Your task to perform on an android device: find snoozed emails in the gmail app Image 0: 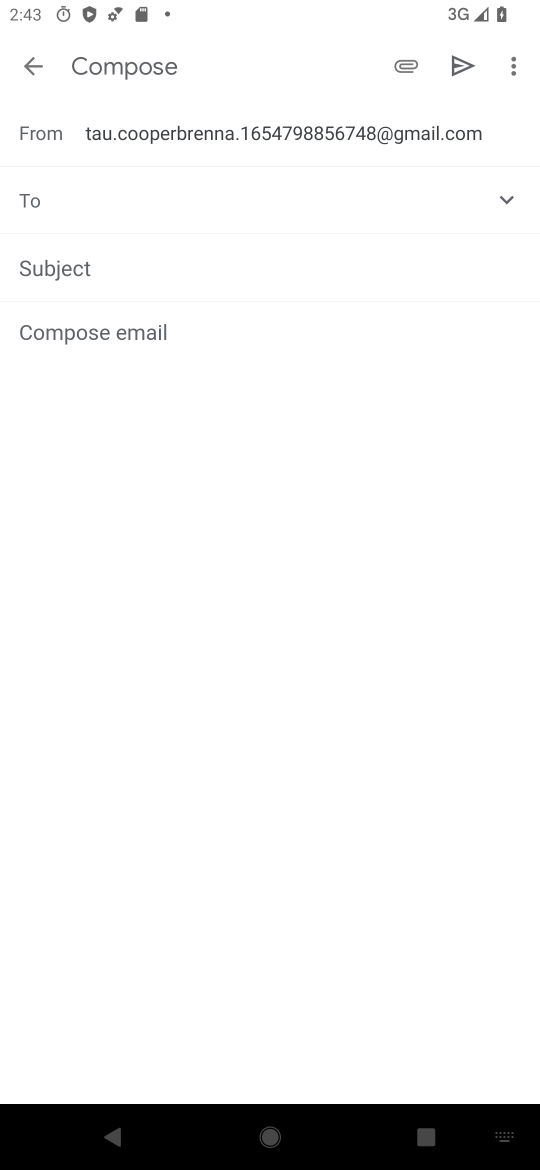
Step 0: press home button
Your task to perform on an android device: find snoozed emails in the gmail app Image 1: 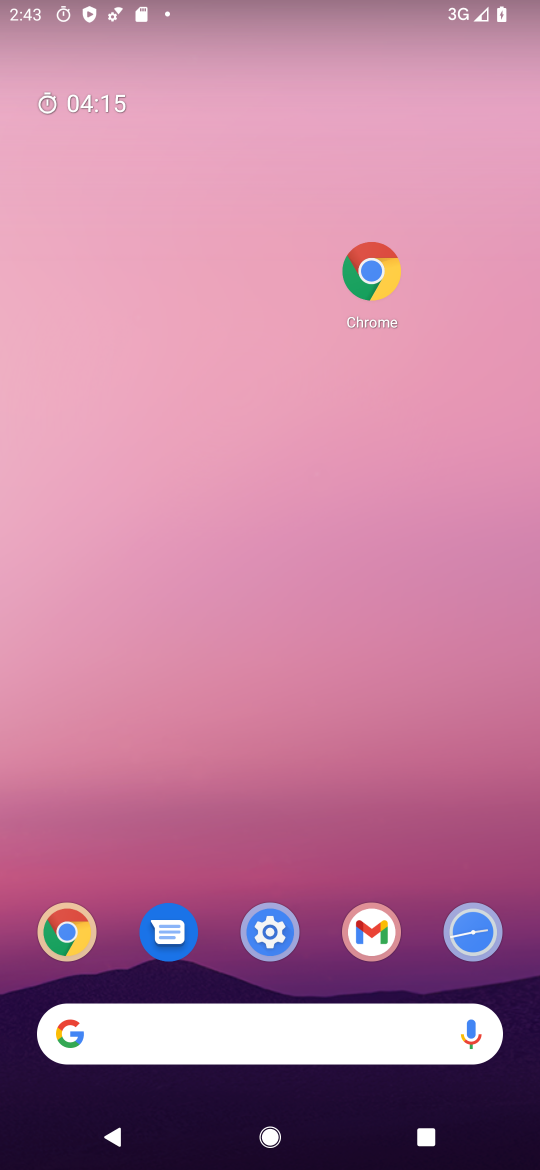
Step 1: drag from (340, 973) to (486, 72)
Your task to perform on an android device: find snoozed emails in the gmail app Image 2: 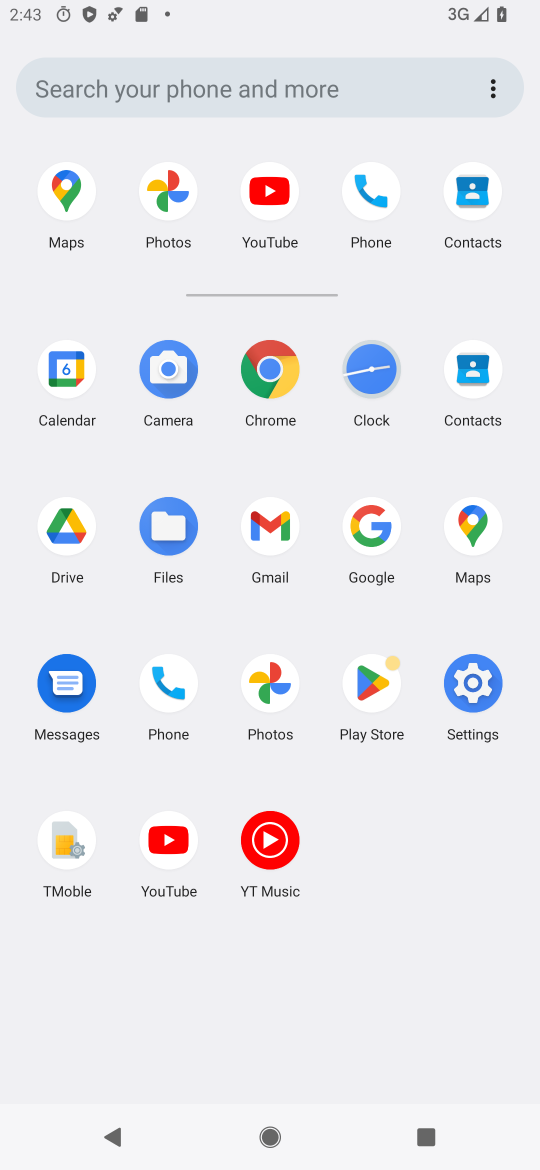
Step 2: click (392, 365)
Your task to perform on an android device: find snoozed emails in the gmail app Image 3: 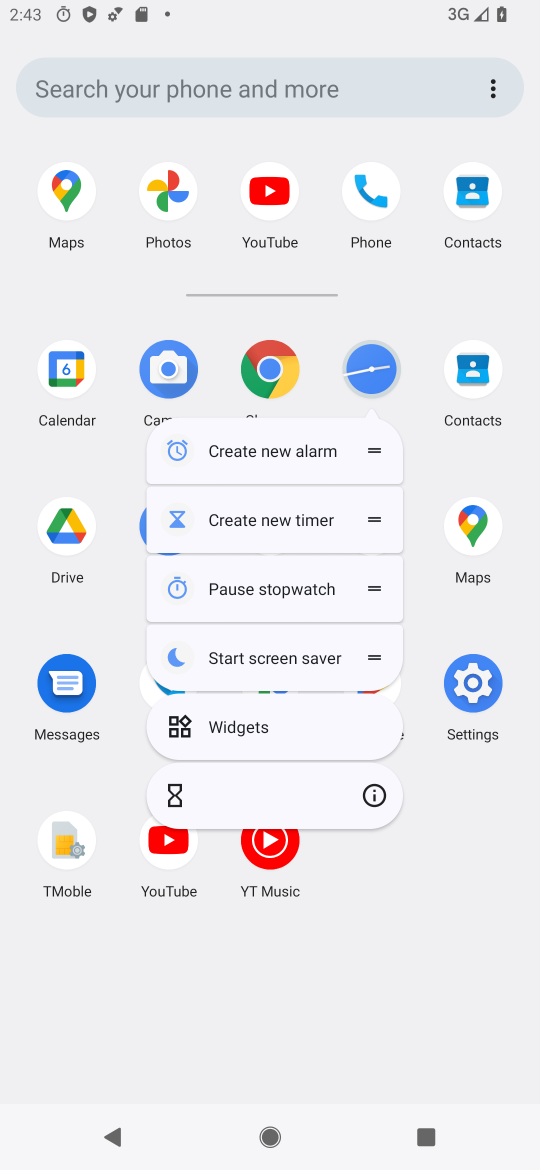
Step 3: click (454, 615)
Your task to perform on an android device: find snoozed emails in the gmail app Image 4: 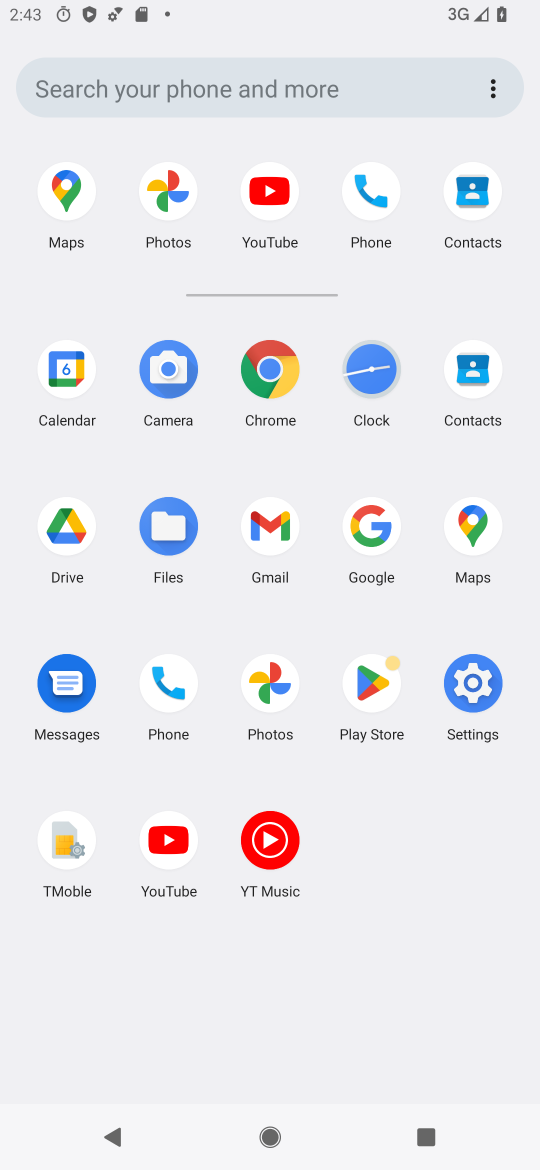
Step 4: click (252, 542)
Your task to perform on an android device: find snoozed emails in the gmail app Image 5: 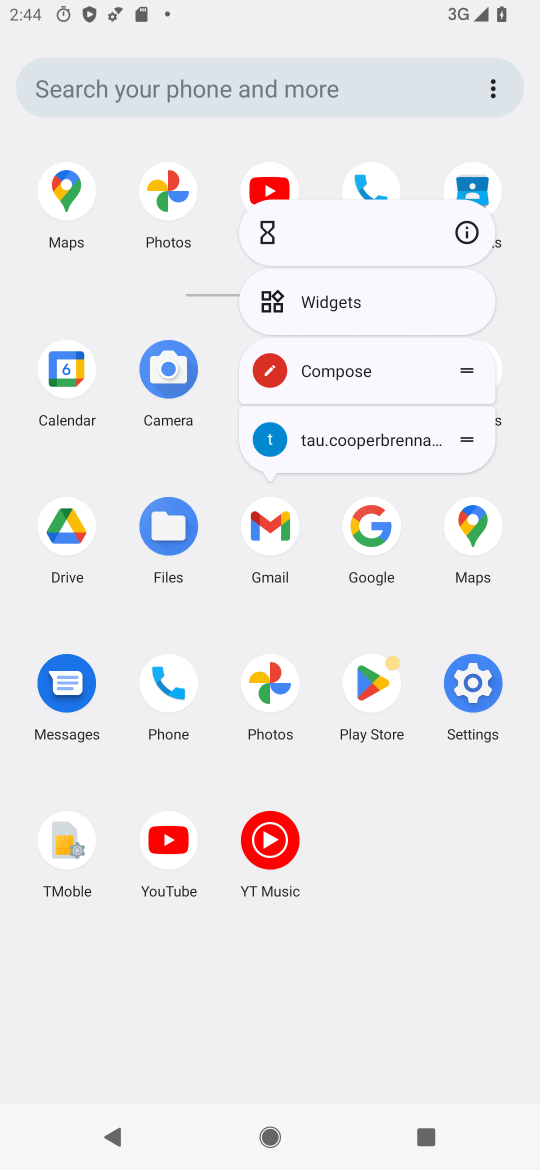
Step 5: click (265, 526)
Your task to perform on an android device: find snoozed emails in the gmail app Image 6: 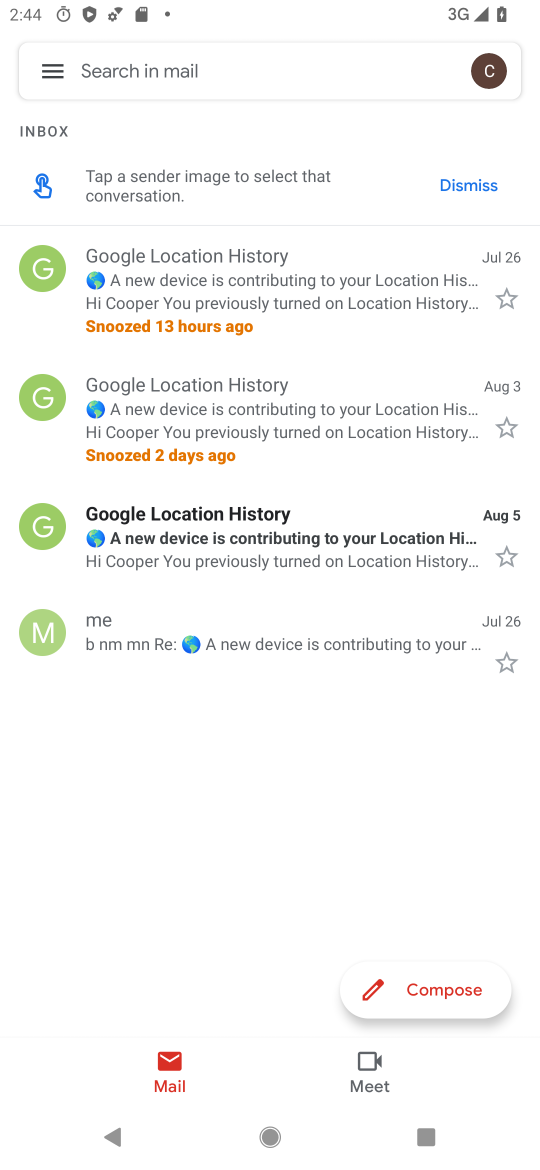
Step 6: click (55, 63)
Your task to perform on an android device: find snoozed emails in the gmail app Image 7: 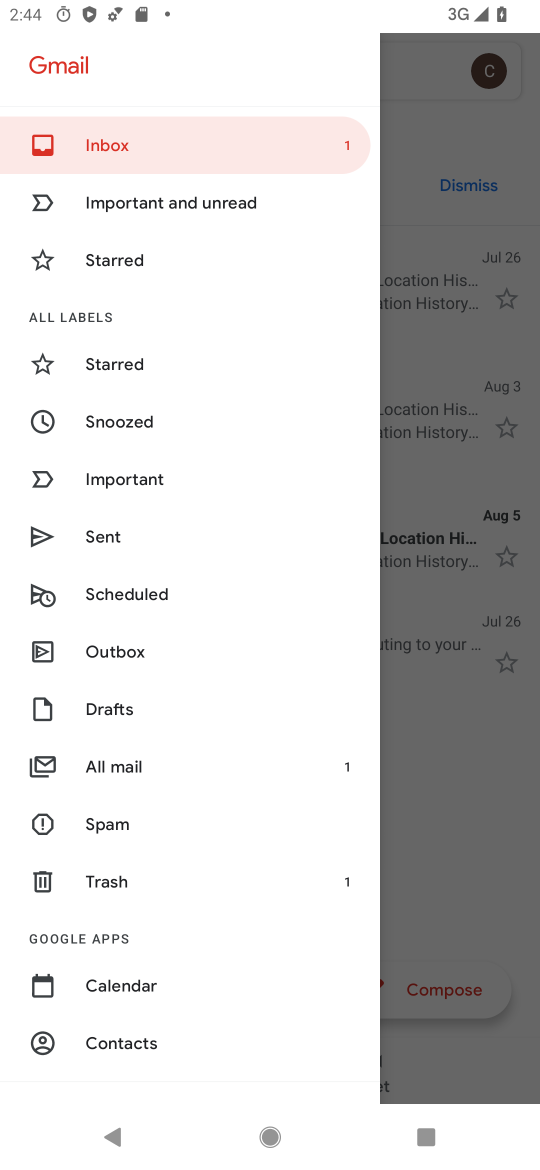
Step 7: click (124, 411)
Your task to perform on an android device: find snoozed emails in the gmail app Image 8: 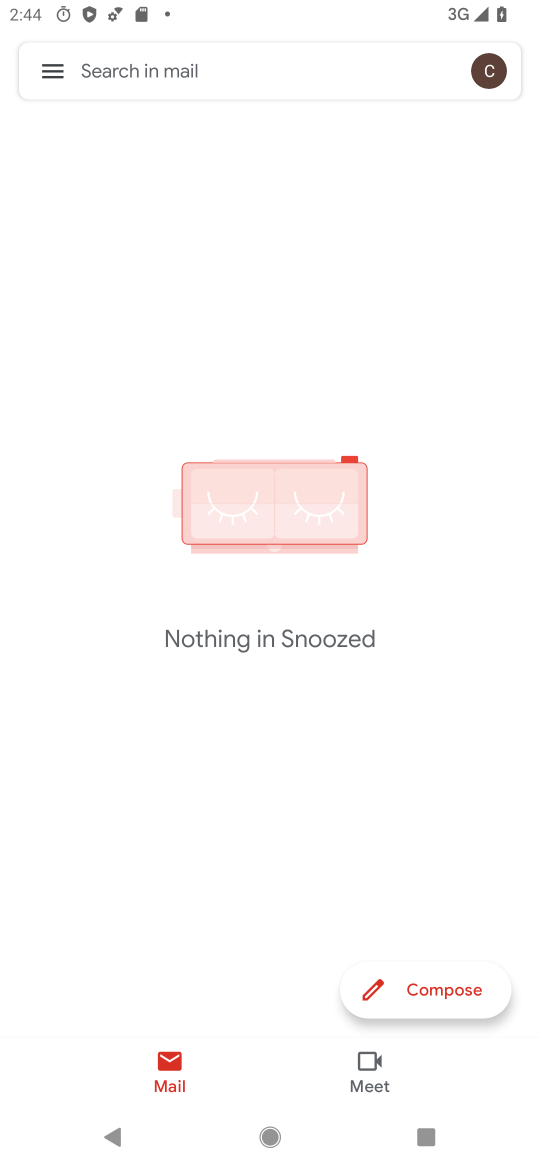
Step 8: task complete